Your task to perform on an android device: View the shopping cart on target. Image 0: 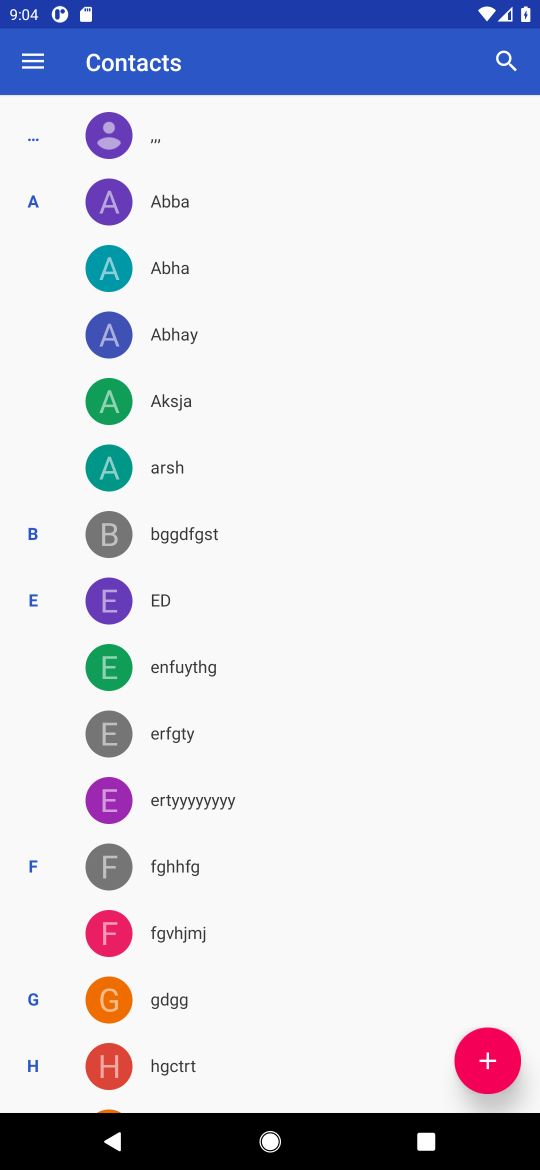
Step 0: press home button
Your task to perform on an android device: View the shopping cart on target. Image 1: 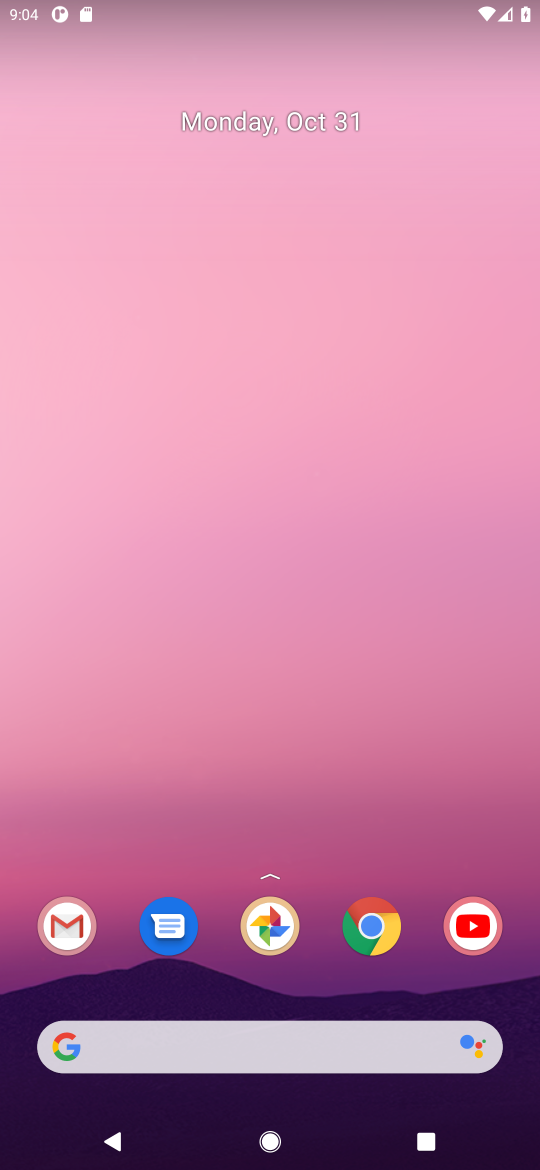
Step 1: click (384, 931)
Your task to perform on an android device: View the shopping cart on target. Image 2: 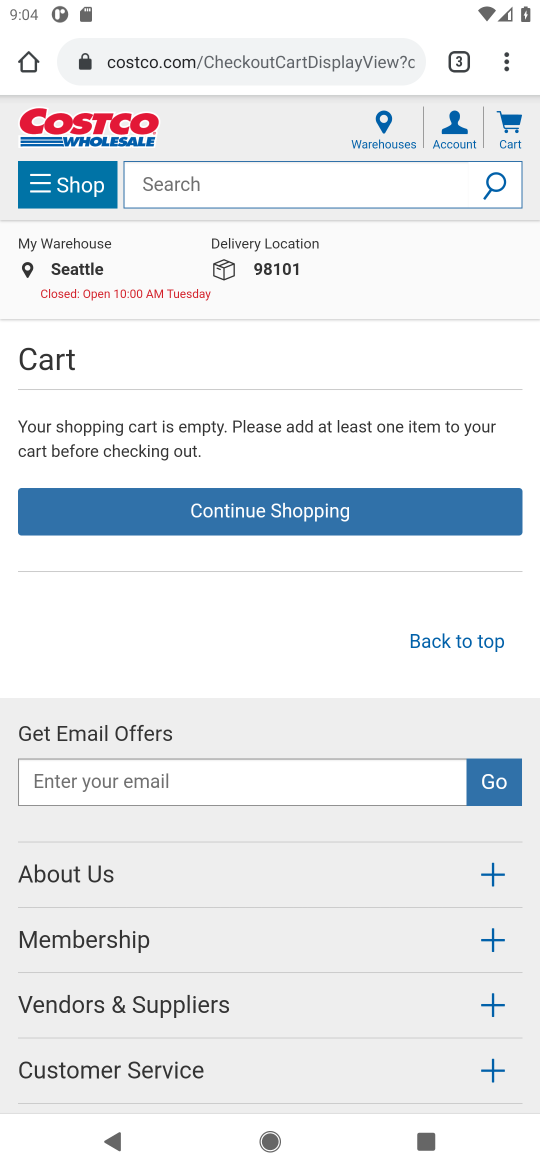
Step 2: click (454, 63)
Your task to perform on an android device: View the shopping cart on target. Image 3: 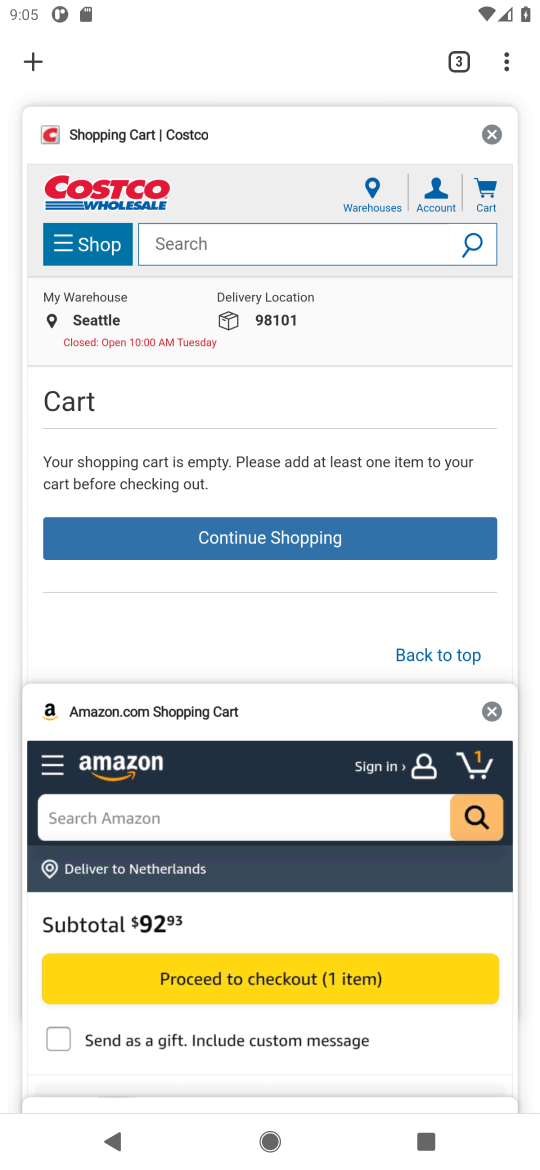
Step 3: click (28, 63)
Your task to perform on an android device: View the shopping cart on target. Image 4: 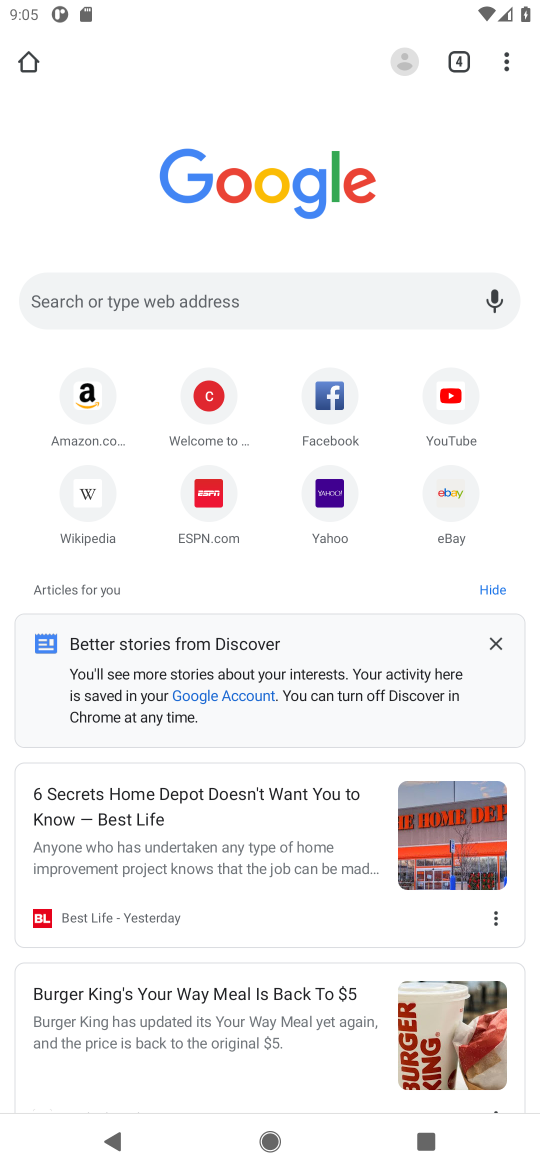
Step 4: click (213, 299)
Your task to perform on an android device: View the shopping cart on target. Image 5: 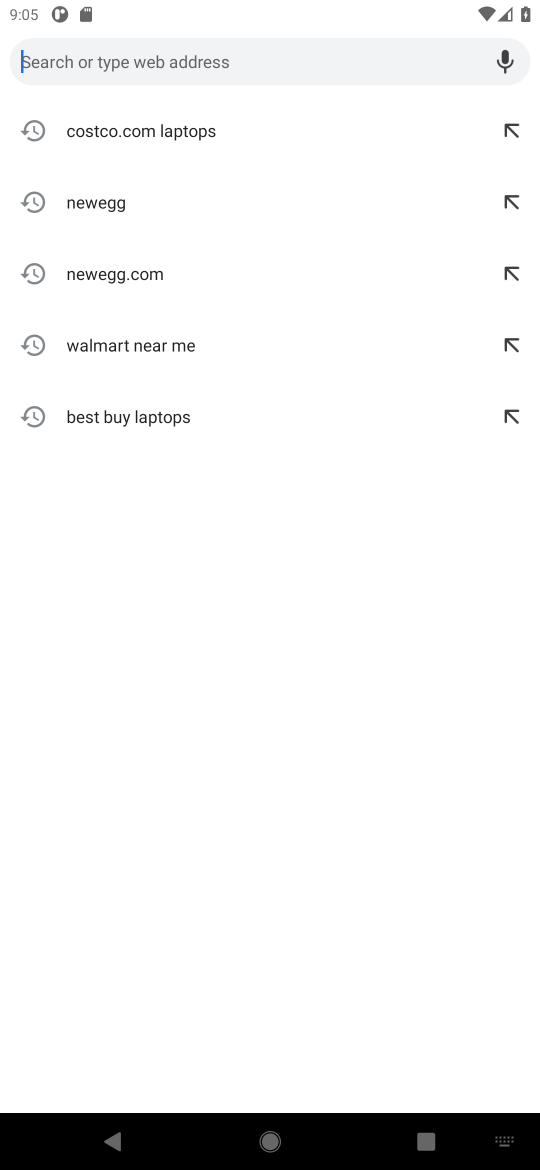
Step 5: type "target"
Your task to perform on an android device: View the shopping cart on target. Image 6: 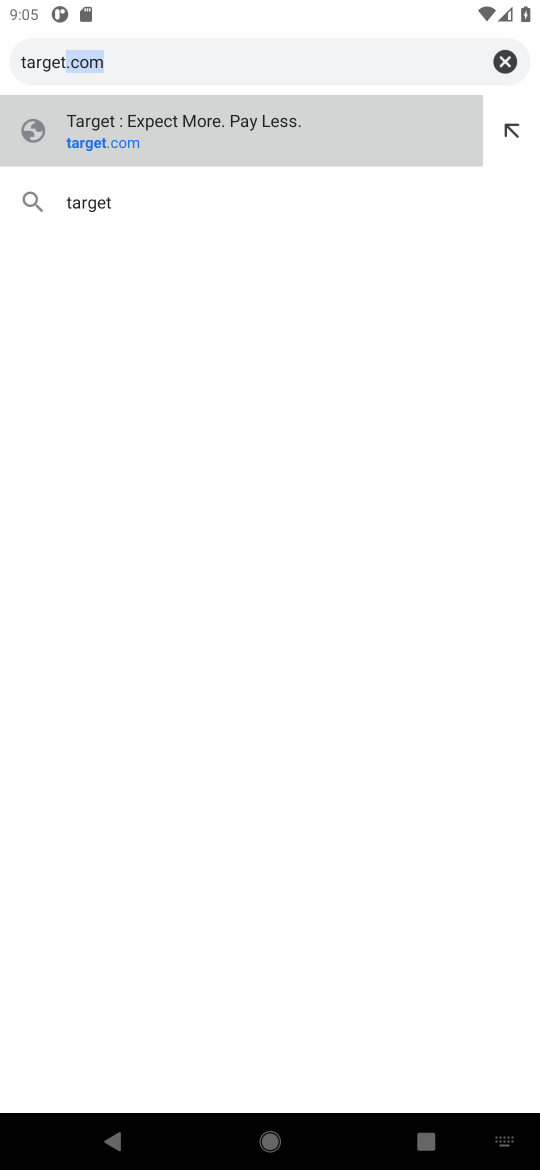
Step 6: click (189, 139)
Your task to perform on an android device: View the shopping cart on target. Image 7: 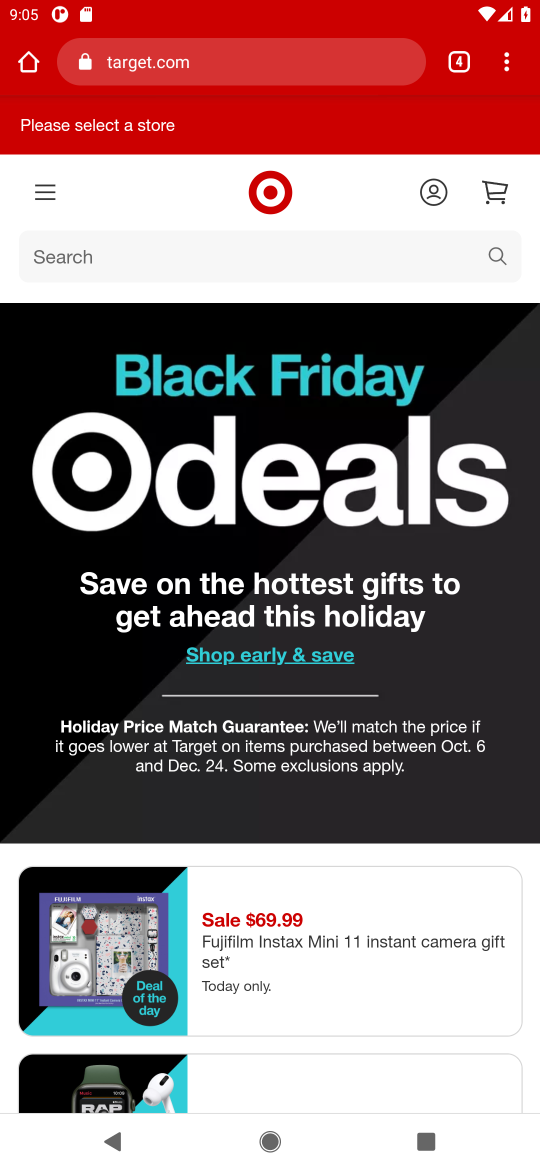
Step 7: click (496, 189)
Your task to perform on an android device: View the shopping cart on target. Image 8: 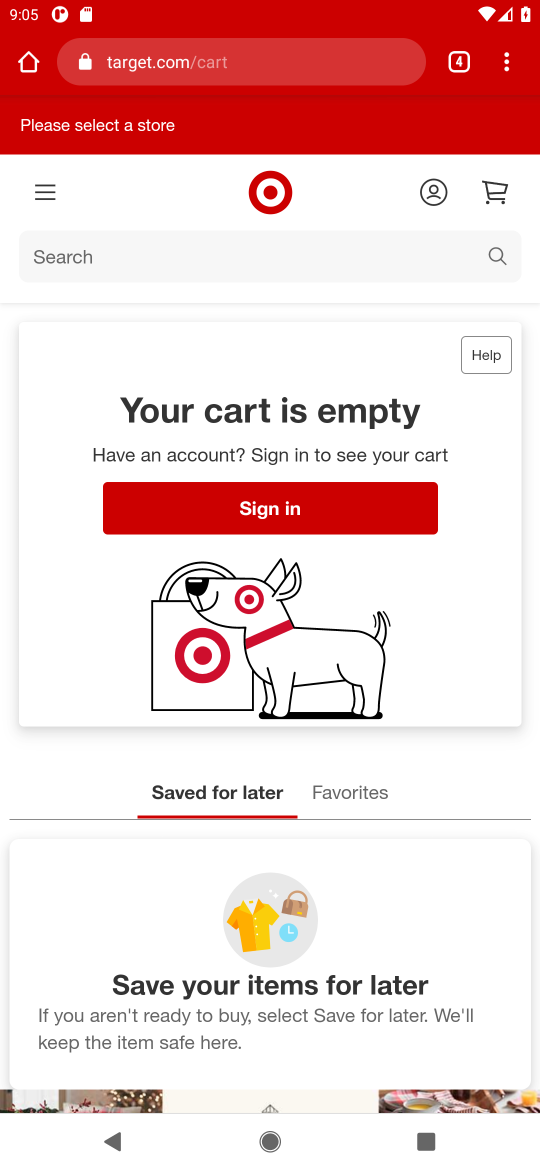
Step 8: task complete